Your task to perform on an android device: turn off data saver in the chrome app Image 0: 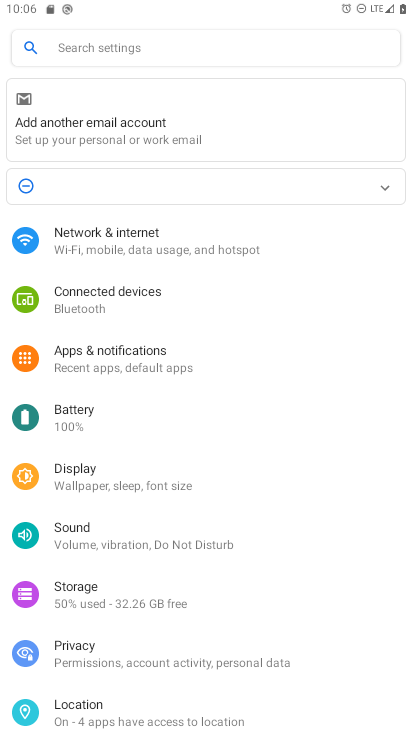
Step 0: press home button
Your task to perform on an android device: turn off data saver in the chrome app Image 1: 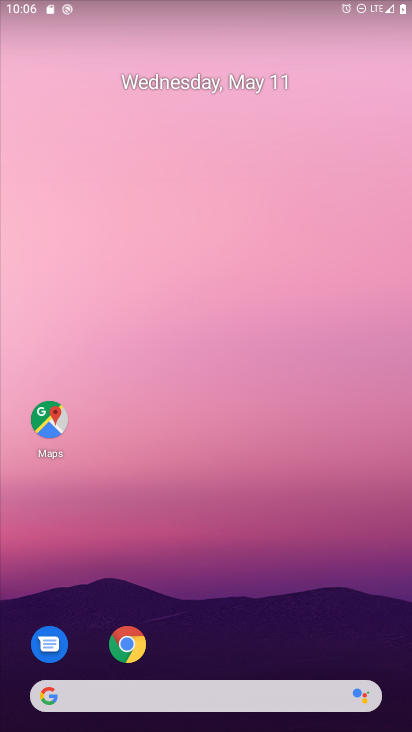
Step 1: click (127, 650)
Your task to perform on an android device: turn off data saver in the chrome app Image 2: 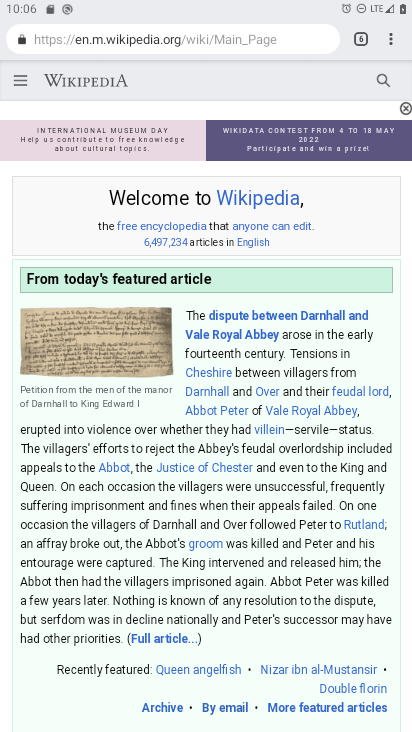
Step 2: click (390, 34)
Your task to perform on an android device: turn off data saver in the chrome app Image 3: 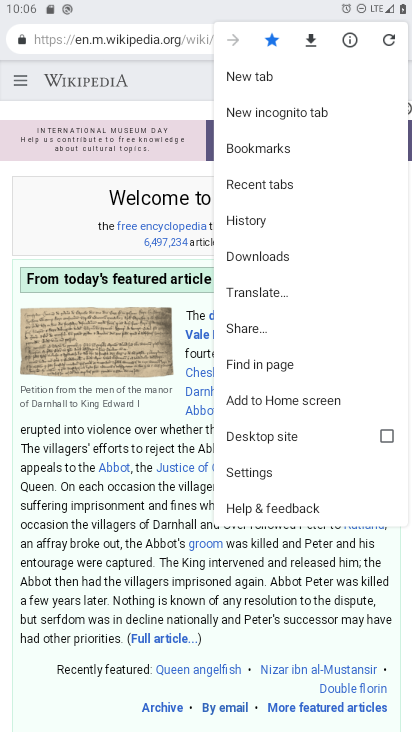
Step 3: click (257, 473)
Your task to perform on an android device: turn off data saver in the chrome app Image 4: 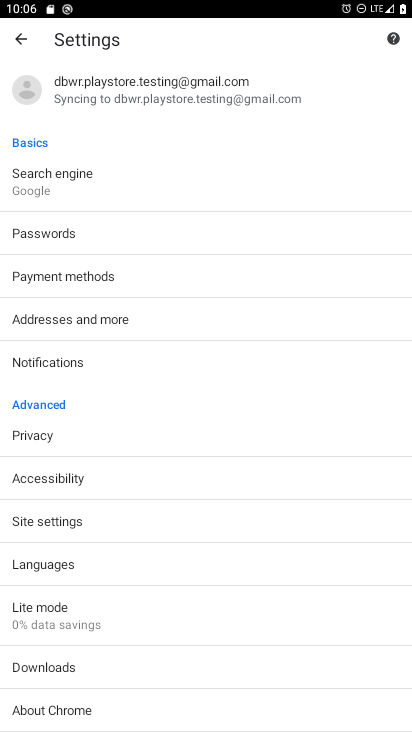
Step 4: click (46, 602)
Your task to perform on an android device: turn off data saver in the chrome app Image 5: 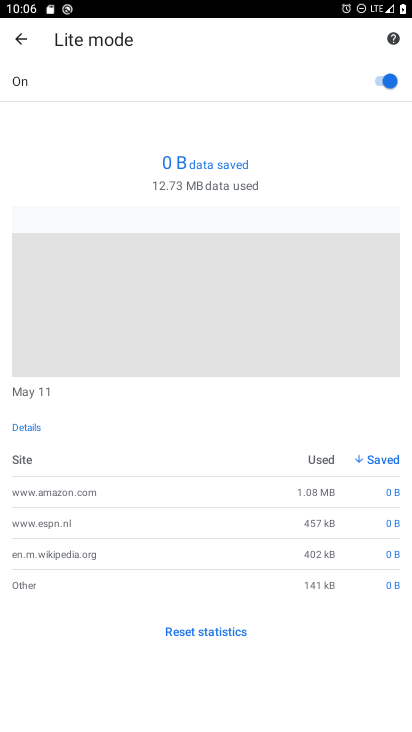
Step 5: click (388, 78)
Your task to perform on an android device: turn off data saver in the chrome app Image 6: 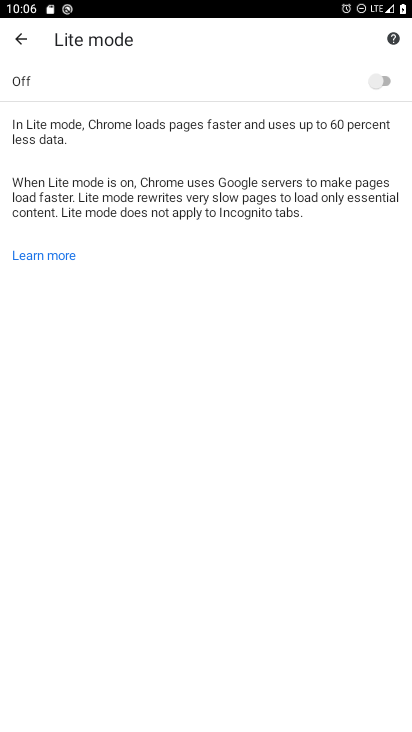
Step 6: task complete